Your task to perform on an android device: change the upload size in google photos Image 0: 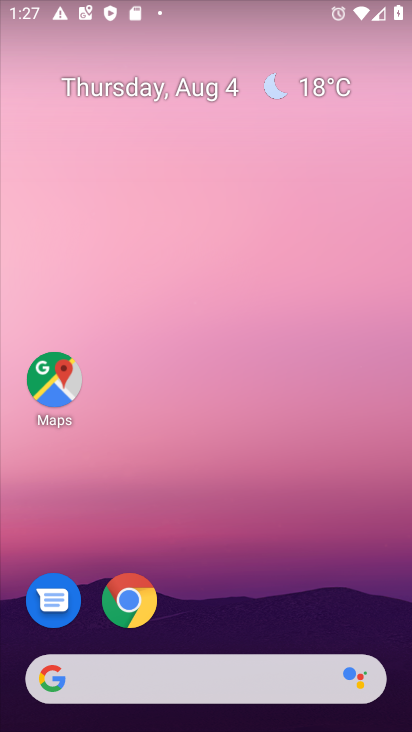
Step 0: drag from (165, 604) to (292, 173)
Your task to perform on an android device: change the upload size in google photos Image 1: 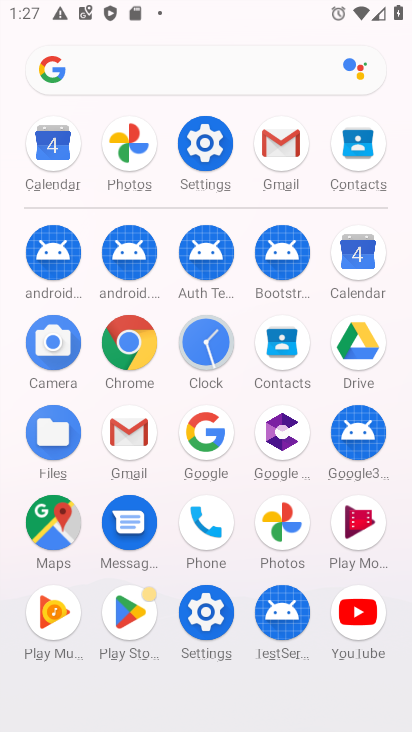
Step 1: click (282, 517)
Your task to perform on an android device: change the upload size in google photos Image 2: 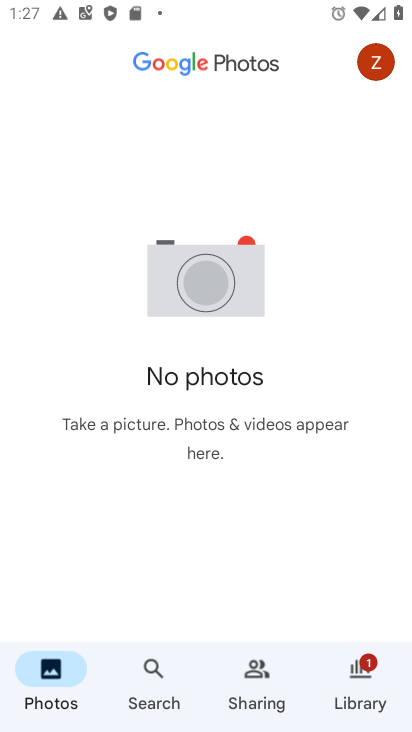
Step 2: click (366, 56)
Your task to perform on an android device: change the upload size in google photos Image 3: 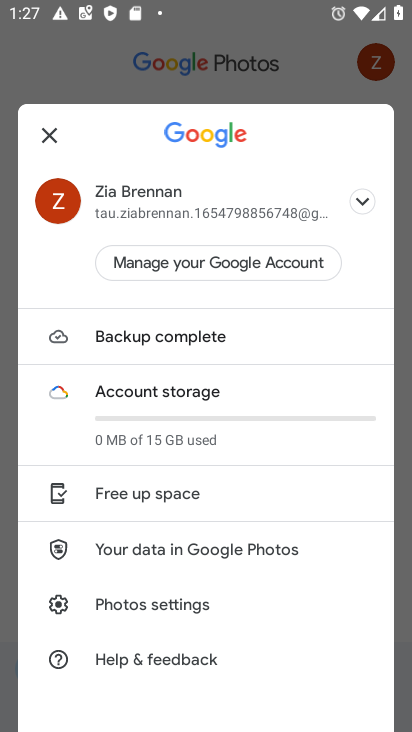
Step 3: click (167, 605)
Your task to perform on an android device: change the upload size in google photos Image 4: 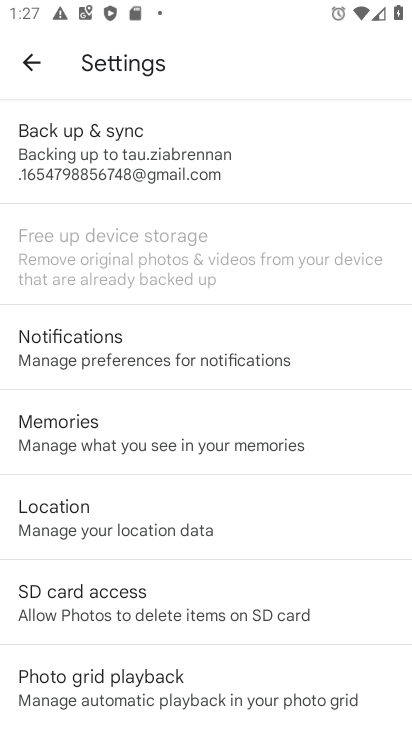
Step 4: click (212, 185)
Your task to perform on an android device: change the upload size in google photos Image 5: 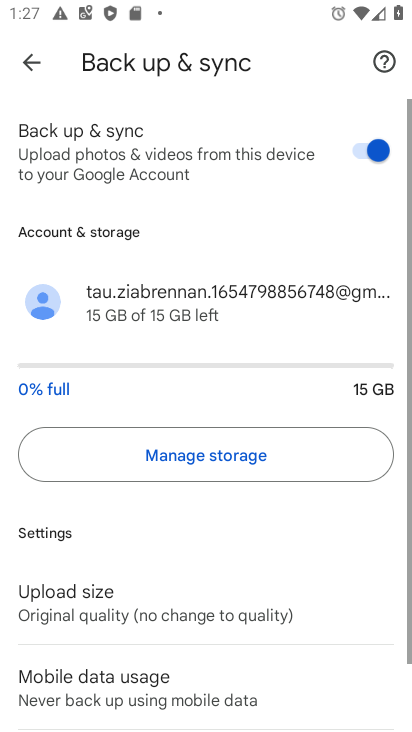
Step 5: drag from (195, 558) to (317, 216)
Your task to perform on an android device: change the upload size in google photos Image 6: 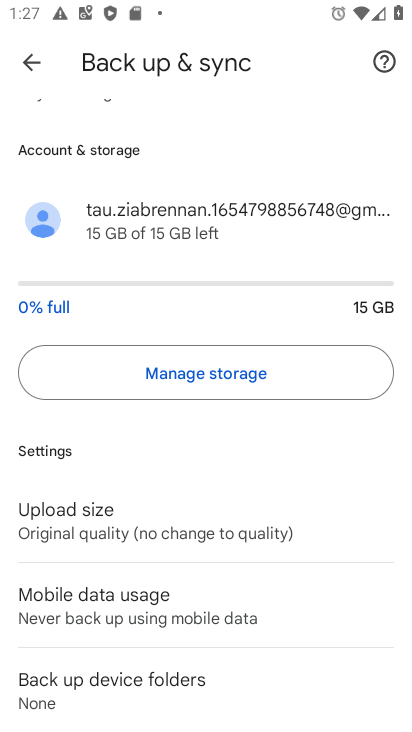
Step 6: click (96, 522)
Your task to perform on an android device: change the upload size in google photos Image 7: 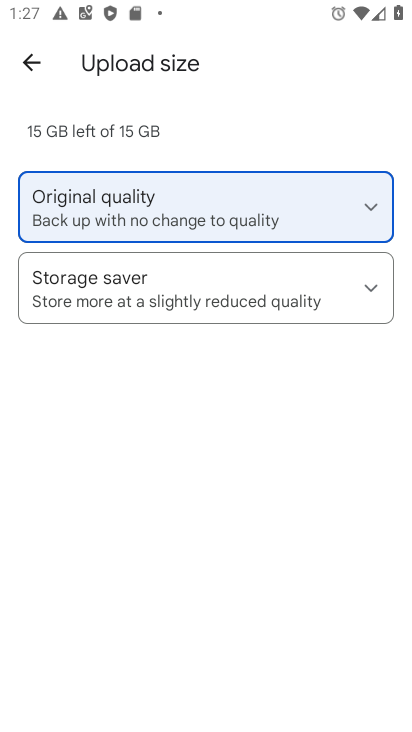
Step 7: click (374, 289)
Your task to perform on an android device: change the upload size in google photos Image 8: 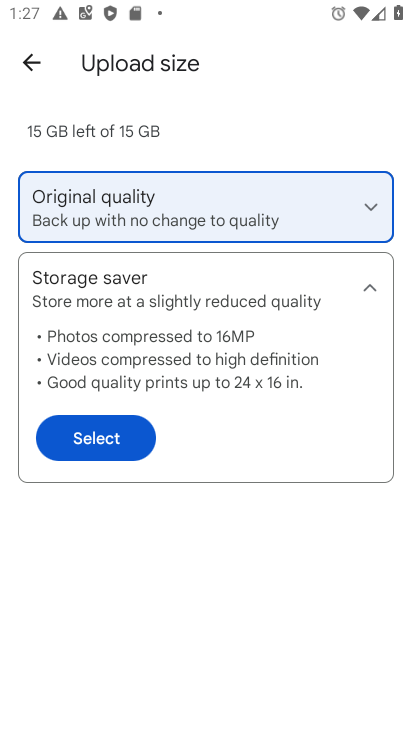
Step 8: click (112, 441)
Your task to perform on an android device: change the upload size in google photos Image 9: 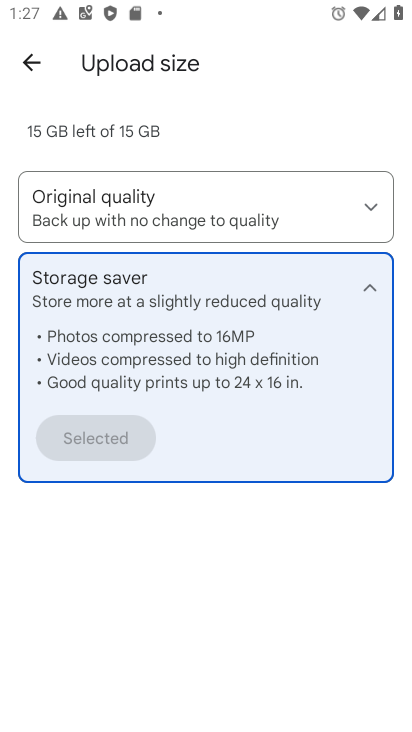
Step 9: task complete